Your task to perform on an android device: Is it going to rain today? Image 0: 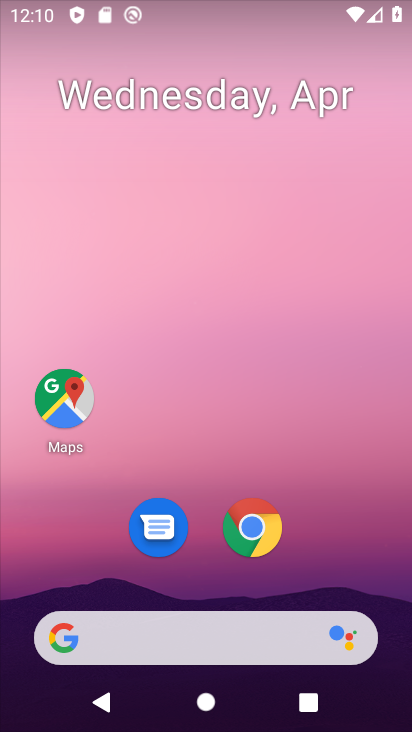
Step 0: drag from (33, 249) to (410, 252)
Your task to perform on an android device: Is it going to rain today? Image 1: 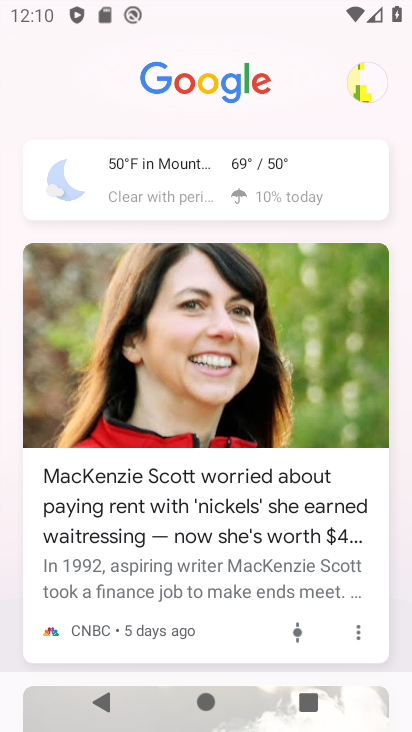
Step 1: click (242, 162)
Your task to perform on an android device: Is it going to rain today? Image 2: 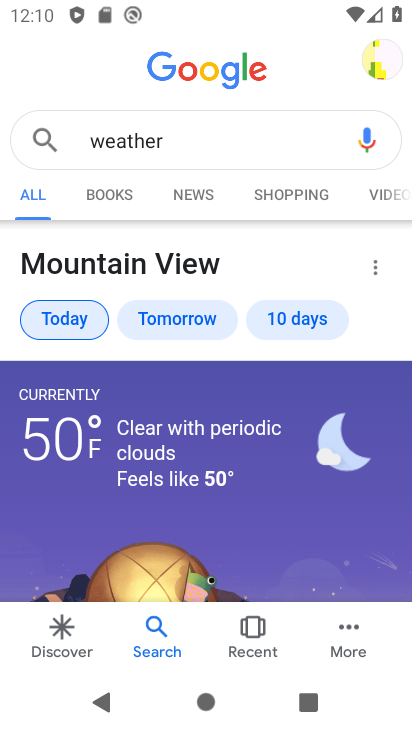
Step 2: task complete